Your task to perform on an android device: When is my next appointment? Image 0: 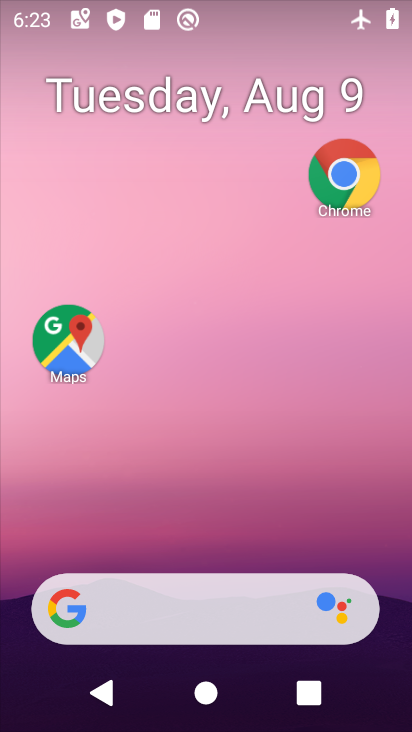
Step 0: drag from (190, 515) to (180, 9)
Your task to perform on an android device: When is my next appointment? Image 1: 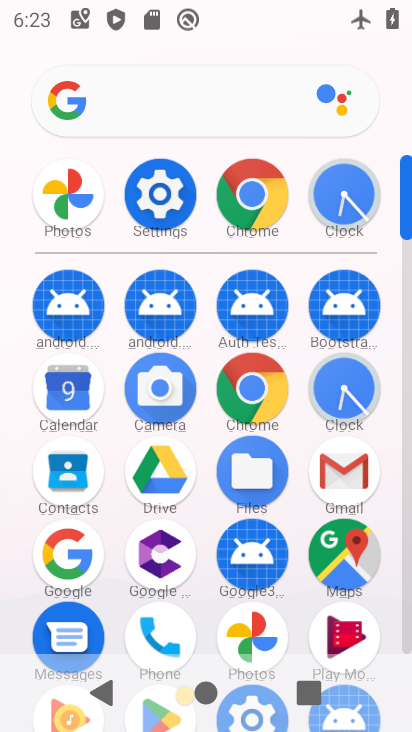
Step 1: click (53, 383)
Your task to perform on an android device: When is my next appointment? Image 2: 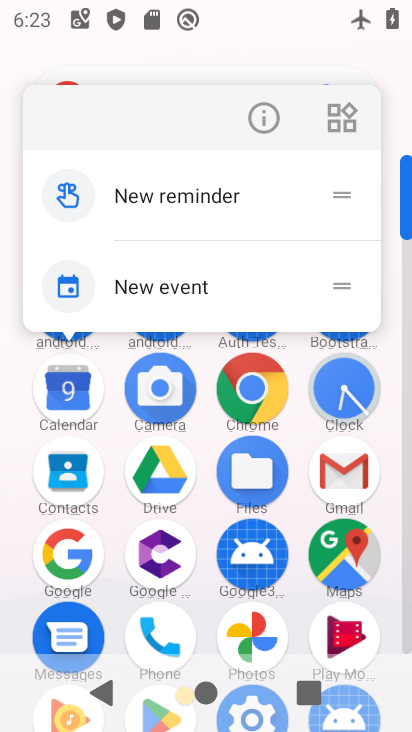
Step 2: click (254, 103)
Your task to perform on an android device: When is my next appointment? Image 3: 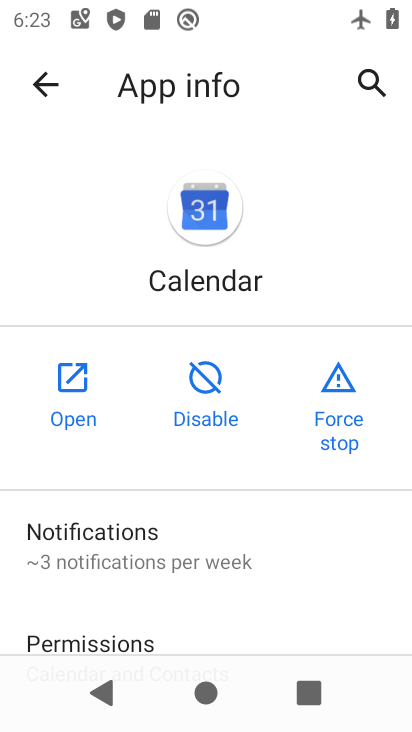
Step 3: click (72, 380)
Your task to perform on an android device: When is my next appointment? Image 4: 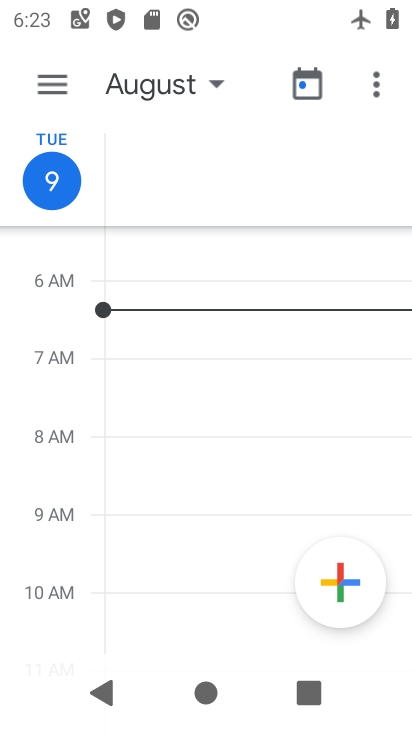
Step 4: click (202, 83)
Your task to perform on an android device: When is my next appointment? Image 5: 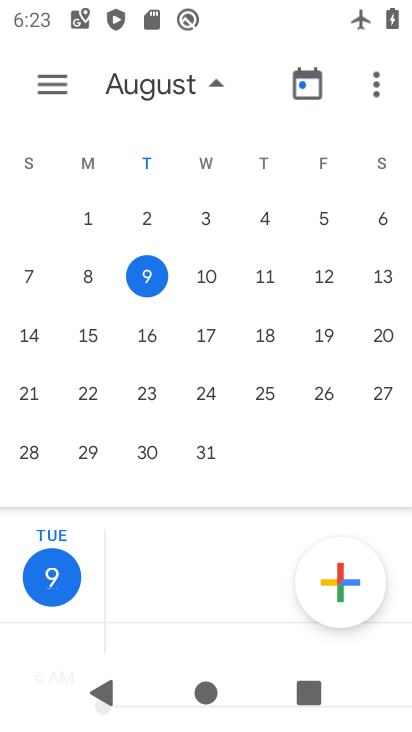
Step 5: click (153, 279)
Your task to perform on an android device: When is my next appointment? Image 6: 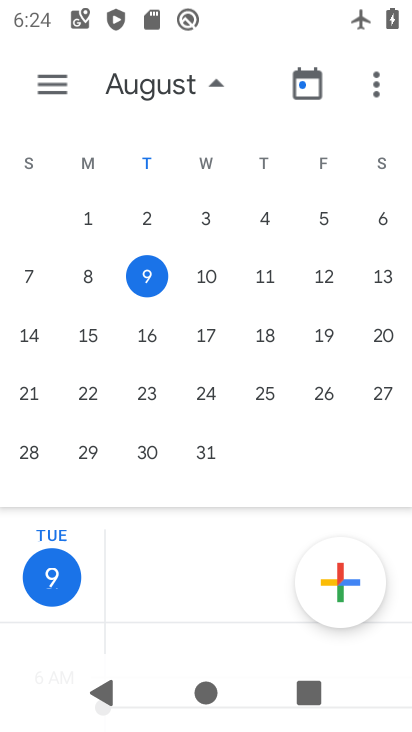
Step 6: click (135, 279)
Your task to perform on an android device: When is my next appointment? Image 7: 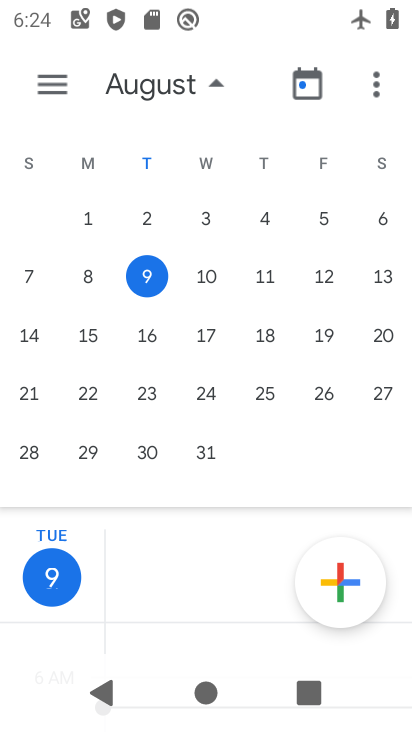
Step 7: click (136, 278)
Your task to perform on an android device: When is my next appointment? Image 8: 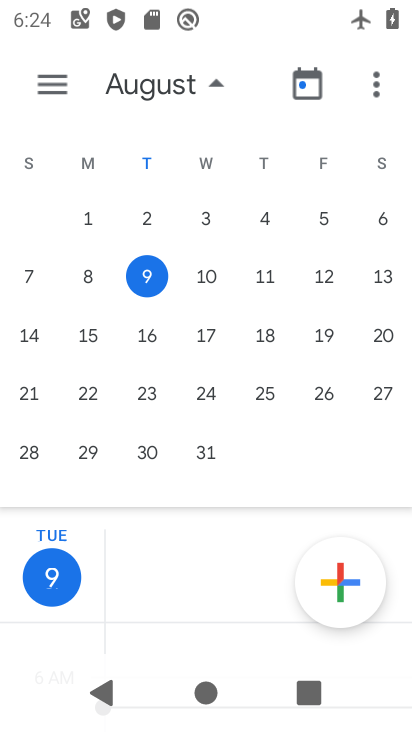
Step 8: task complete